Your task to perform on an android device: check the backup settings in the google photos Image 0: 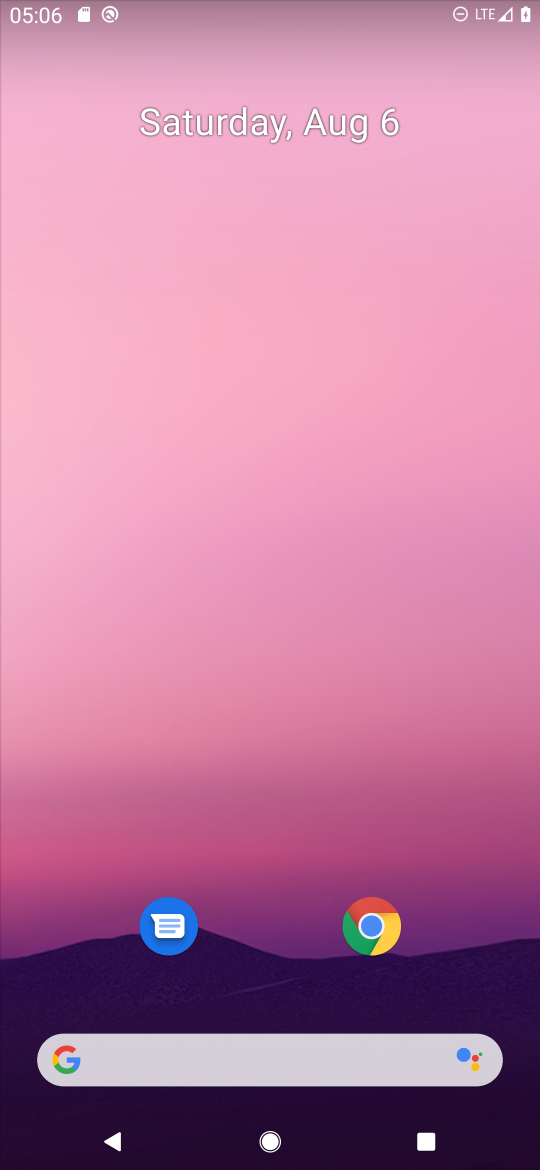
Step 0: drag from (261, 875) to (261, 277)
Your task to perform on an android device: check the backup settings in the google photos Image 1: 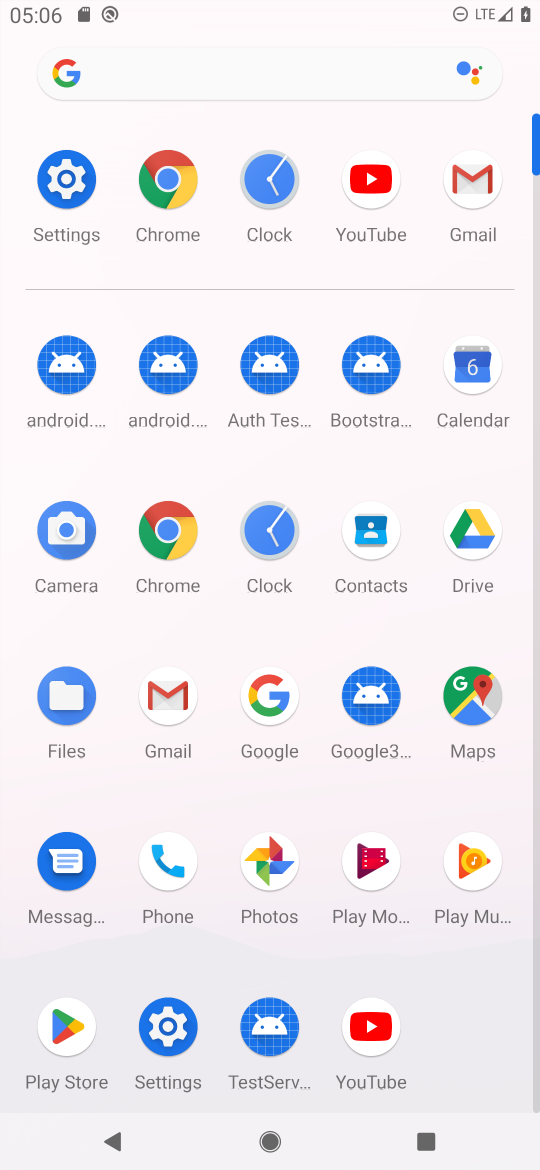
Step 1: click (281, 859)
Your task to perform on an android device: check the backup settings in the google photos Image 2: 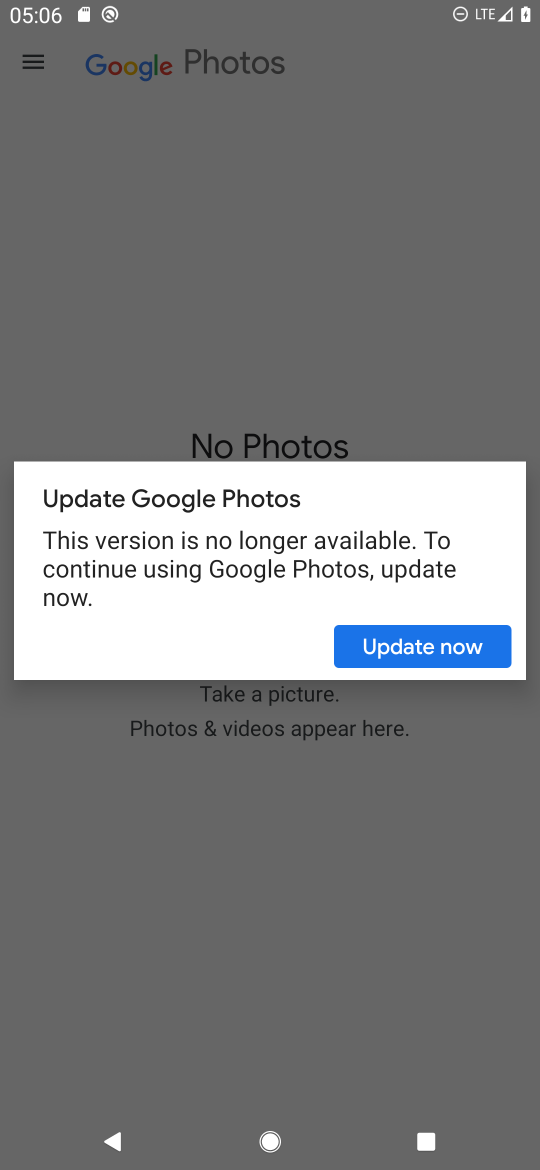
Step 2: click (419, 647)
Your task to perform on an android device: check the backup settings in the google photos Image 3: 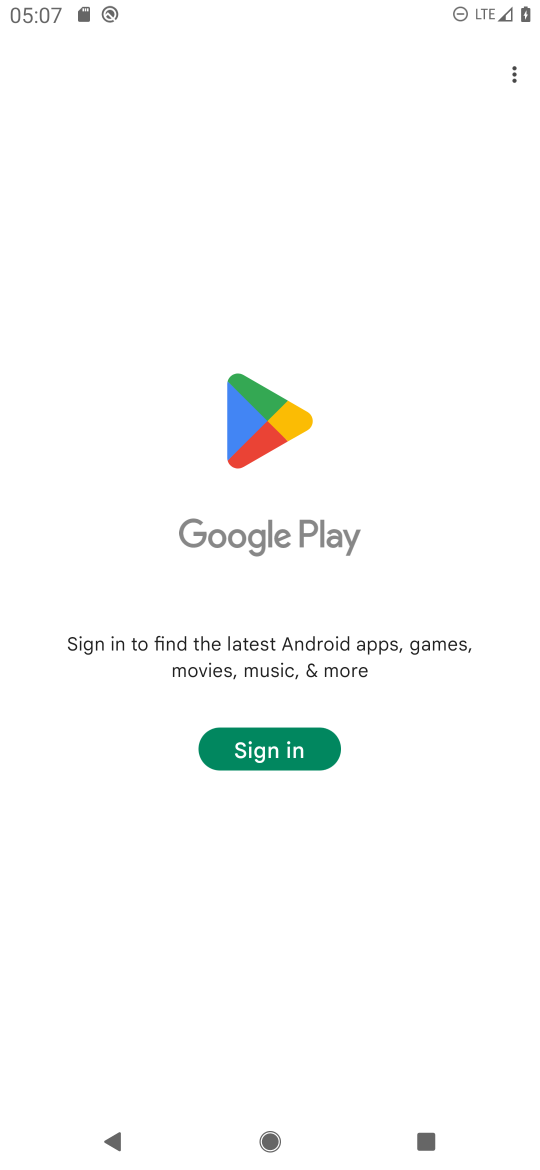
Step 3: task complete